Your task to perform on an android device: check data usage Image 0: 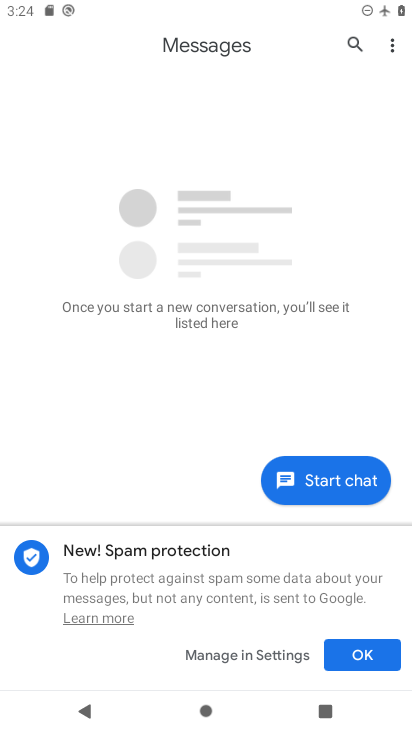
Step 0: press home button
Your task to perform on an android device: check data usage Image 1: 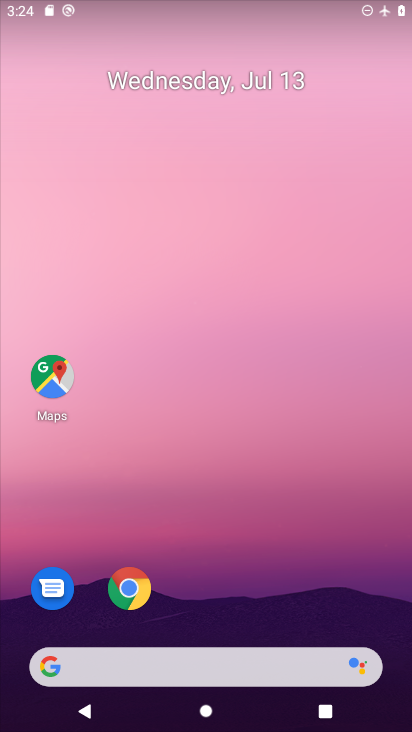
Step 1: drag from (214, 649) to (170, 31)
Your task to perform on an android device: check data usage Image 2: 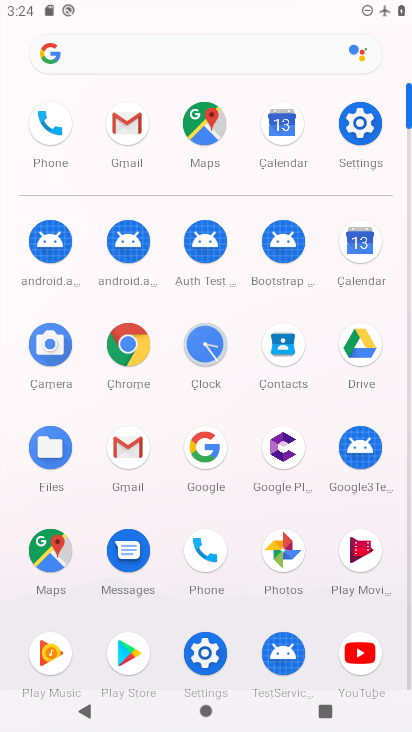
Step 2: click (357, 110)
Your task to perform on an android device: check data usage Image 3: 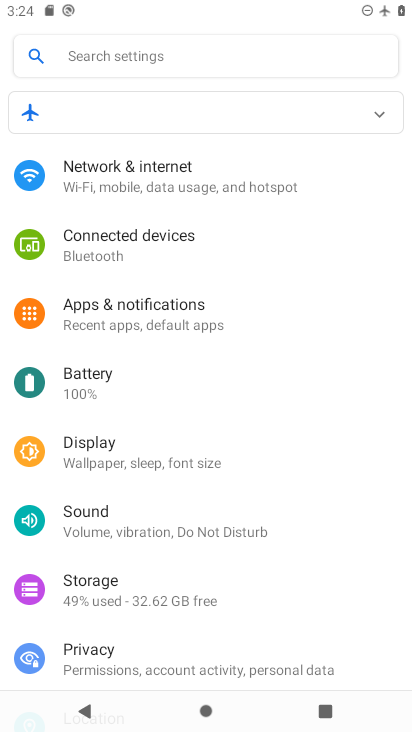
Step 3: click (134, 181)
Your task to perform on an android device: check data usage Image 4: 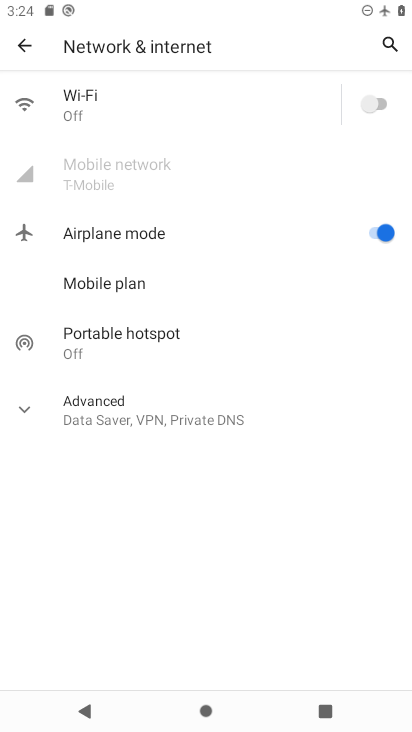
Step 4: task complete